Your task to perform on an android device: turn pop-ups off in chrome Image 0: 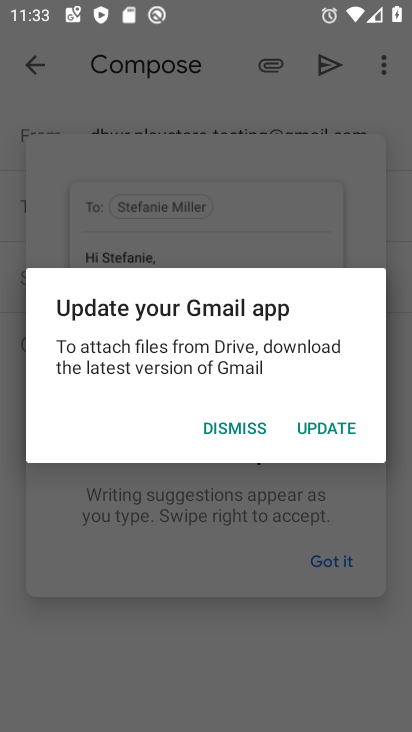
Step 0: press home button
Your task to perform on an android device: turn pop-ups off in chrome Image 1: 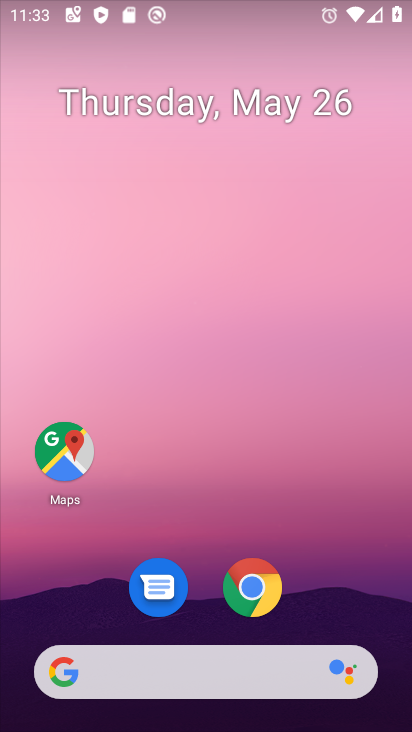
Step 1: drag from (229, 543) to (275, 242)
Your task to perform on an android device: turn pop-ups off in chrome Image 2: 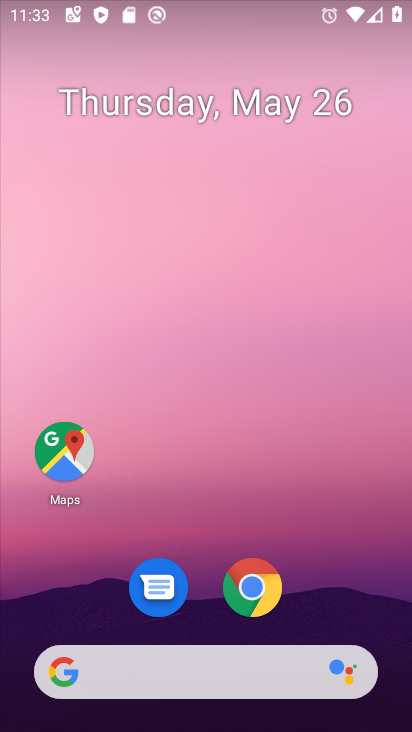
Step 2: drag from (218, 705) to (224, 42)
Your task to perform on an android device: turn pop-ups off in chrome Image 3: 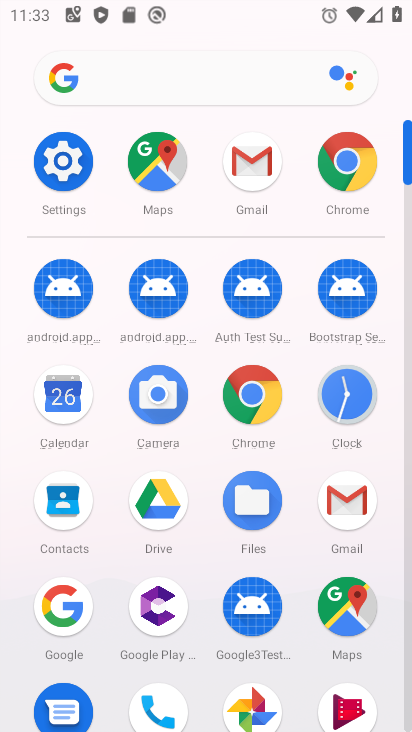
Step 3: click (364, 155)
Your task to perform on an android device: turn pop-ups off in chrome Image 4: 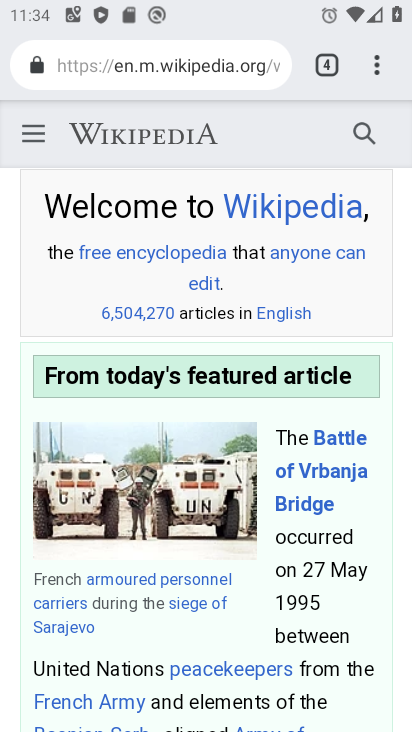
Step 4: click (363, 77)
Your task to perform on an android device: turn pop-ups off in chrome Image 5: 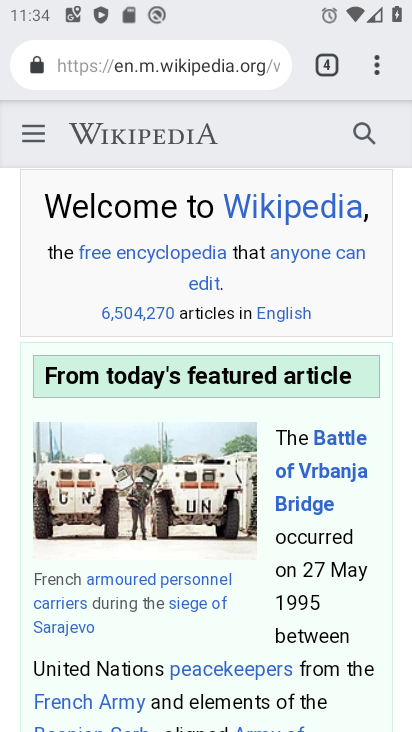
Step 5: click (377, 77)
Your task to perform on an android device: turn pop-ups off in chrome Image 6: 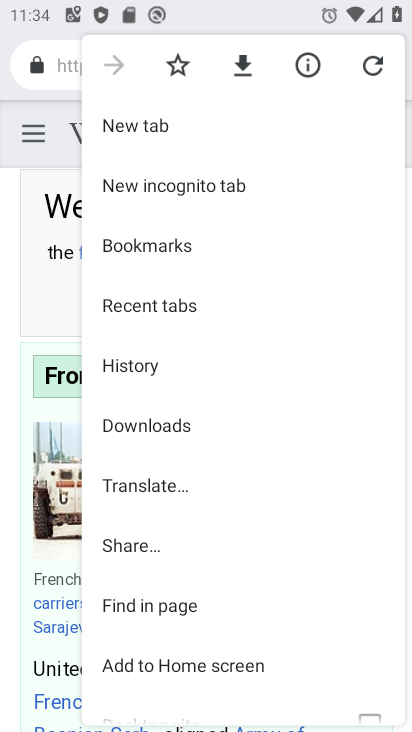
Step 6: drag from (193, 553) to (204, 249)
Your task to perform on an android device: turn pop-ups off in chrome Image 7: 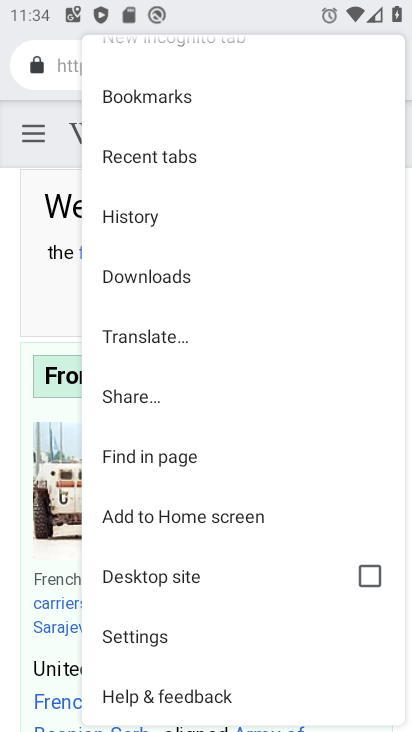
Step 7: click (172, 629)
Your task to perform on an android device: turn pop-ups off in chrome Image 8: 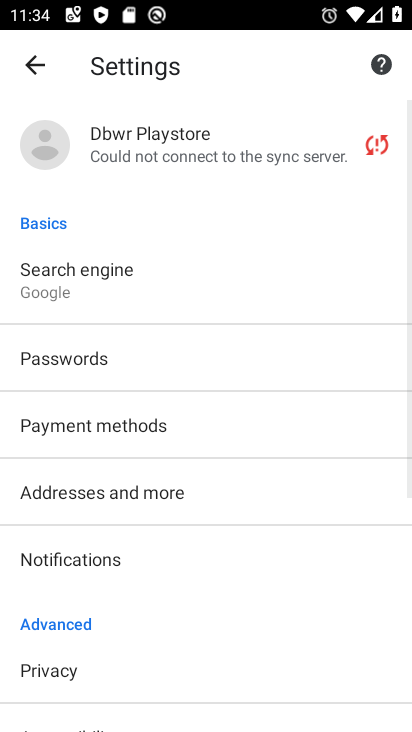
Step 8: drag from (111, 575) to (143, 310)
Your task to perform on an android device: turn pop-ups off in chrome Image 9: 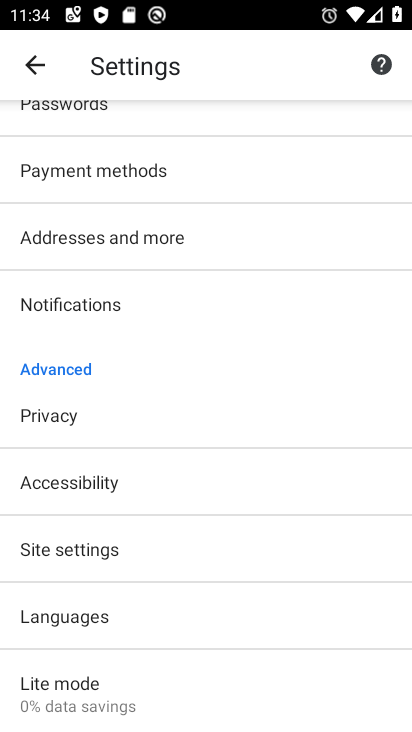
Step 9: click (82, 548)
Your task to perform on an android device: turn pop-ups off in chrome Image 10: 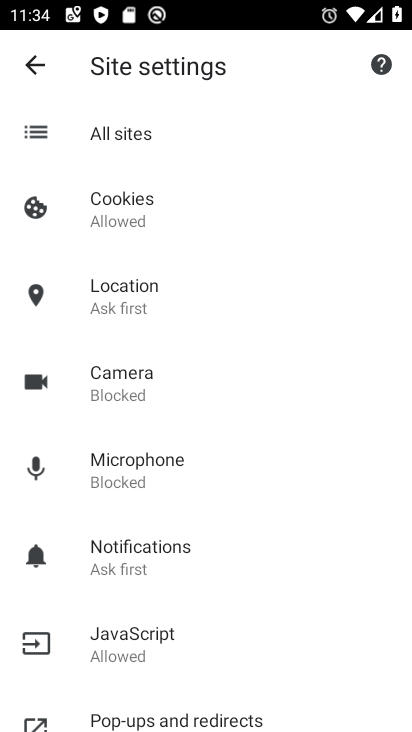
Step 10: drag from (143, 584) to (169, 351)
Your task to perform on an android device: turn pop-ups off in chrome Image 11: 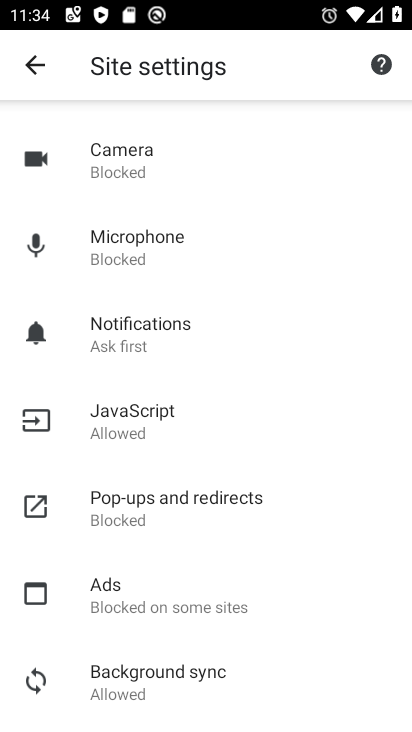
Step 11: click (229, 505)
Your task to perform on an android device: turn pop-ups off in chrome Image 12: 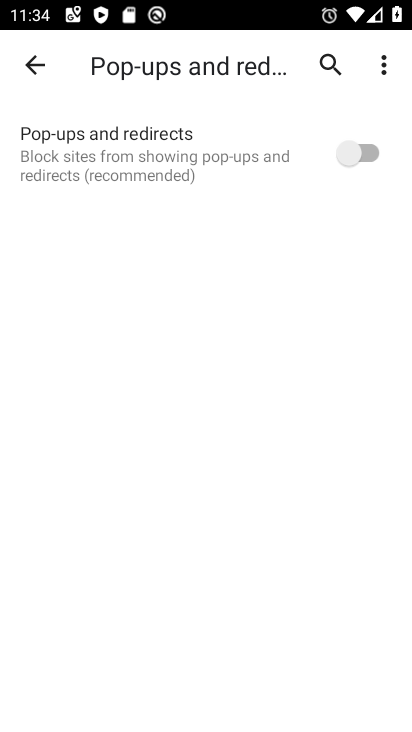
Step 12: task complete